Your task to perform on an android device: open app "eBay: The shopping marketplace" Image 0: 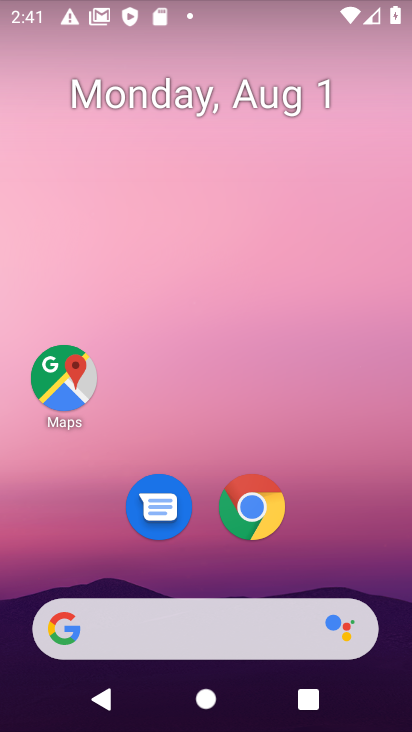
Step 0: click (325, 84)
Your task to perform on an android device: open app "eBay: The shopping marketplace" Image 1: 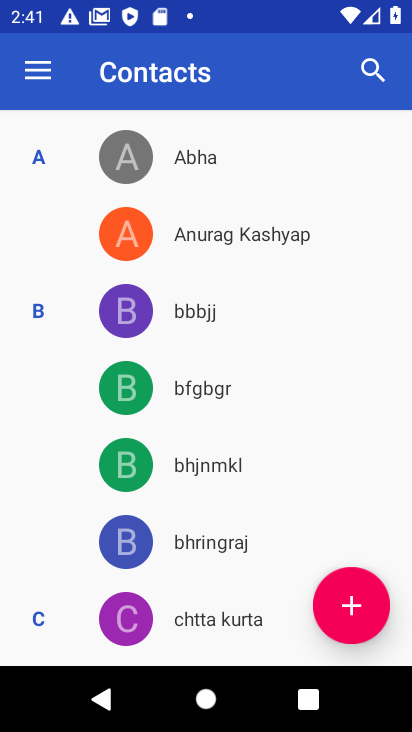
Step 1: press home button
Your task to perform on an android device: open app "eBay: The shopping marketplace" Image 2: 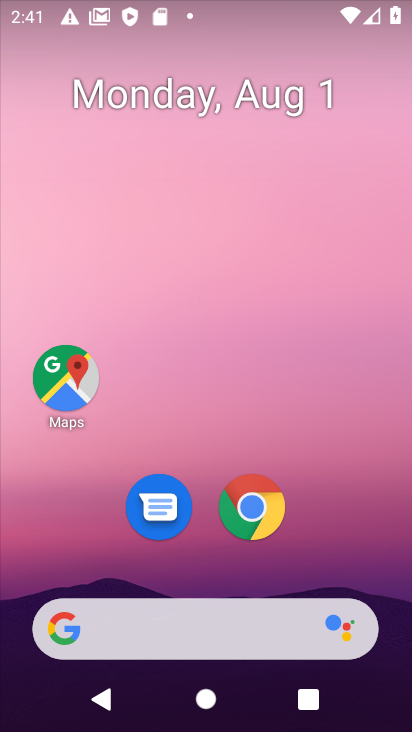
Step 2: drag from (371, 567) to (260, 67)
Your task to perform on an android device: open app "eBay: The shopping marketplace" Image 3: 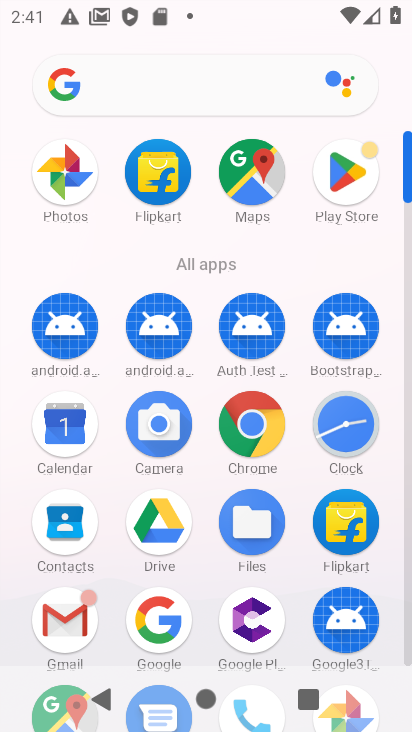
Step 3: click (353, 165)
Your task to perform on an android device: open app "eBay: The shopping marketplace" Image 4: 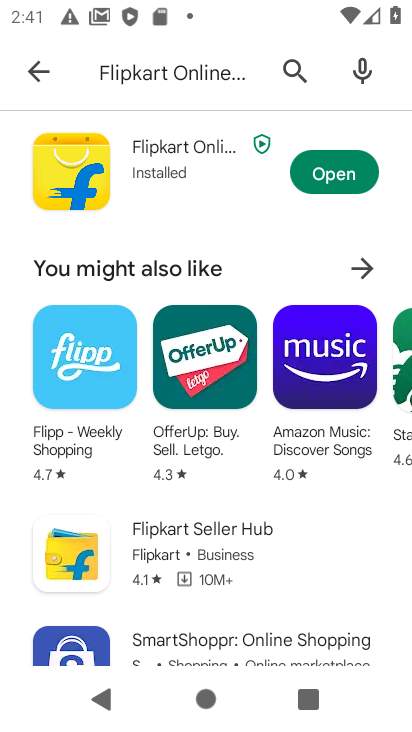
Step 4: click (204, 84)
Your task to perform on an android device: open app "eBay: The shopping marketplace" Image 5: 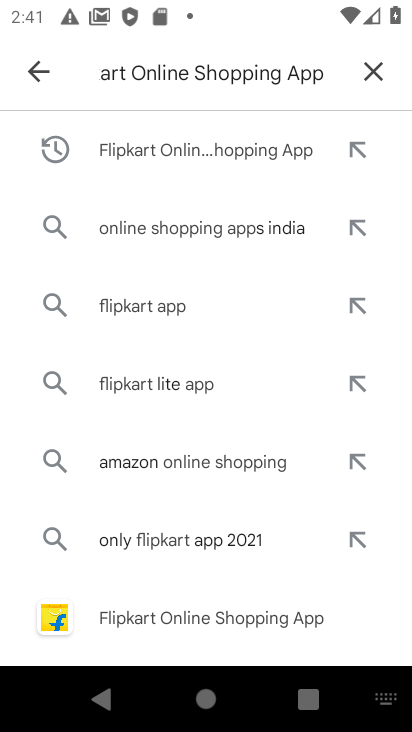
Step 5: click (387, 72)
Your task to perform on an android device: open app "eBay: The shopping marketplace" Image 6: 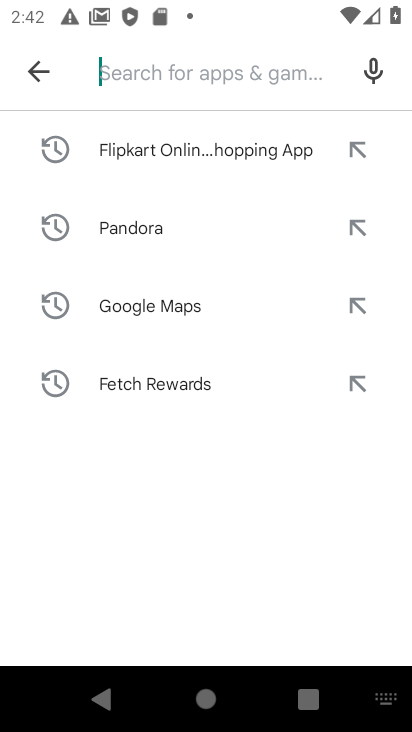
Step 6: type "eBay: The shopping marketplace"
Your task to perform on an android device: open app "eBay: The shopping marketplace" Image 7: 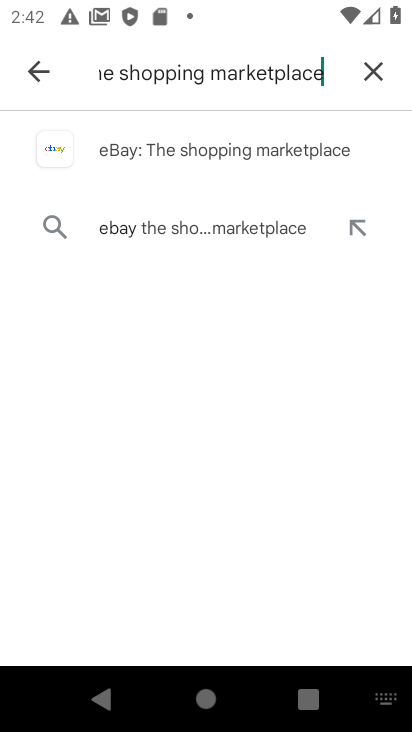
Step 7: press enter
Your task to perform on an android device: open app "eBay: The shopping marketplace" Image 8: 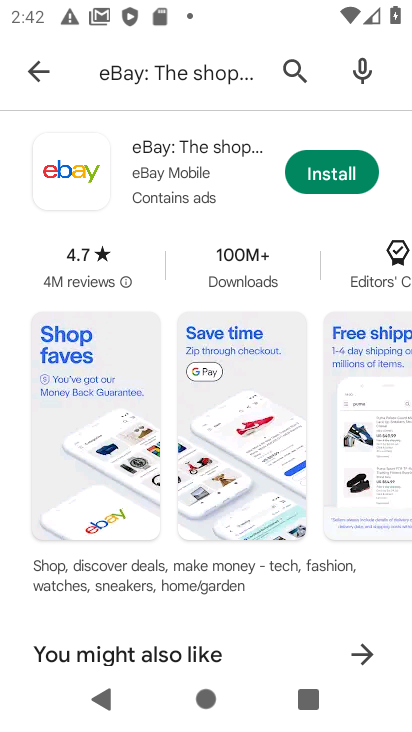
Step 8: click (179, 174)
Your task to perform on an android device: open app "eBay: The shopping marketplace" Image 9: 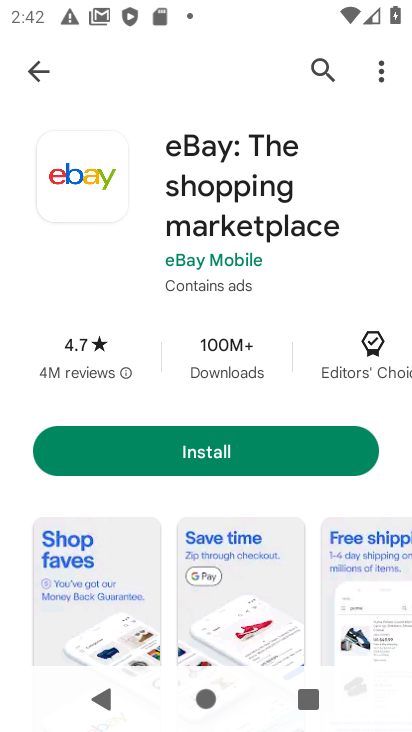
Step 9: task complete